Your task to perform on an android device: Search for the best selling jewelry on Etsy. Image 0: 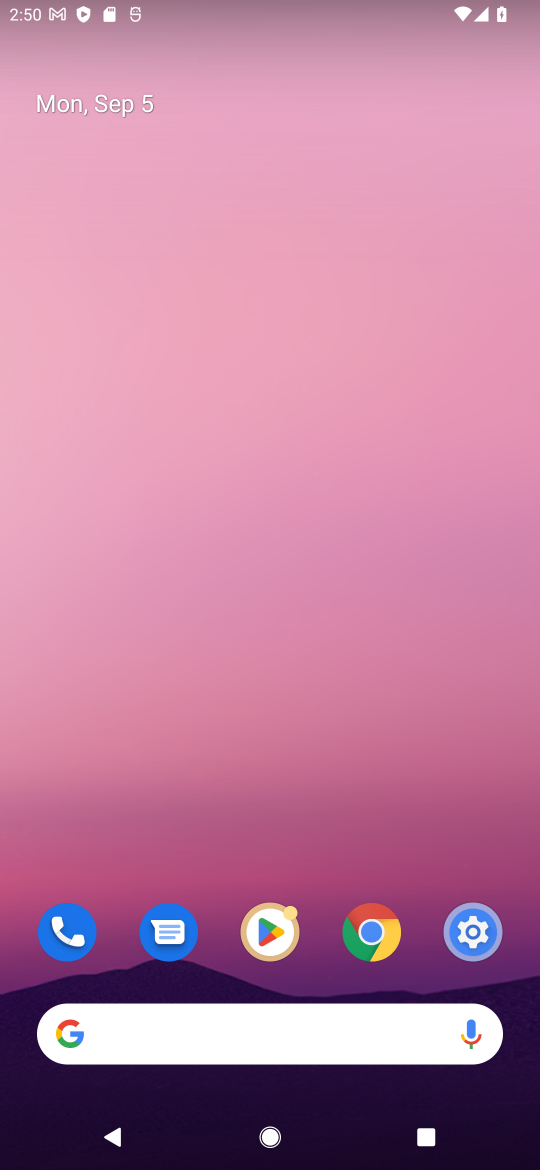
Step 0: click (242, 1024)
Your task to perform on an android device: Search for the best selling jewelry on Etsy. Image 1: 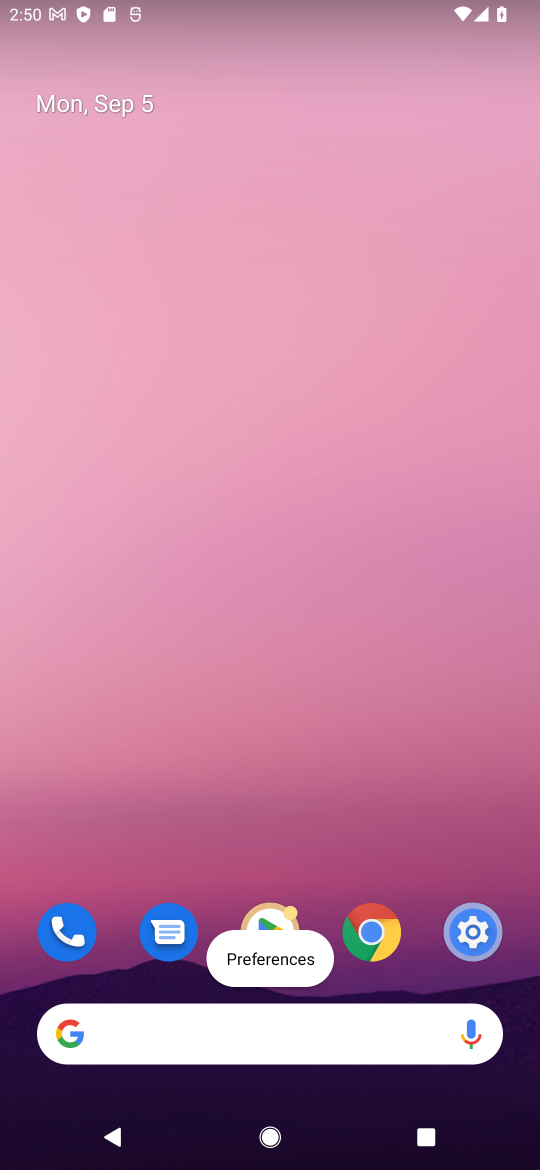
Step 1: click (242, 1024)
Your task to perform on an android device: Search for the best selling jewelry on Etsy. Image 2: 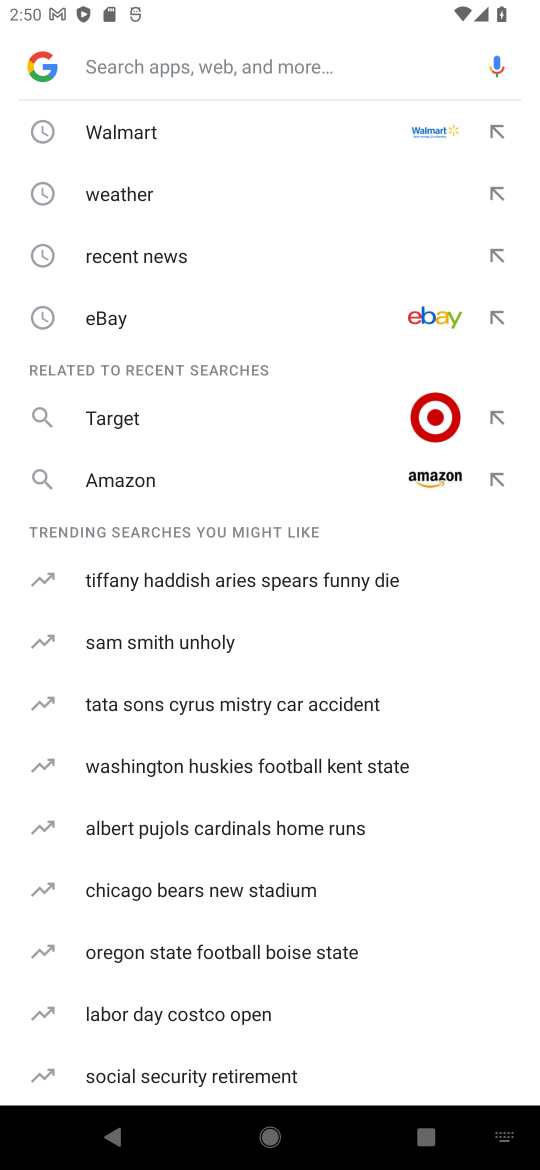
Step 2: click (242, 1025)
Your task to perform on an android device: Search for the best selling jewelry on Etsy. Image 3: 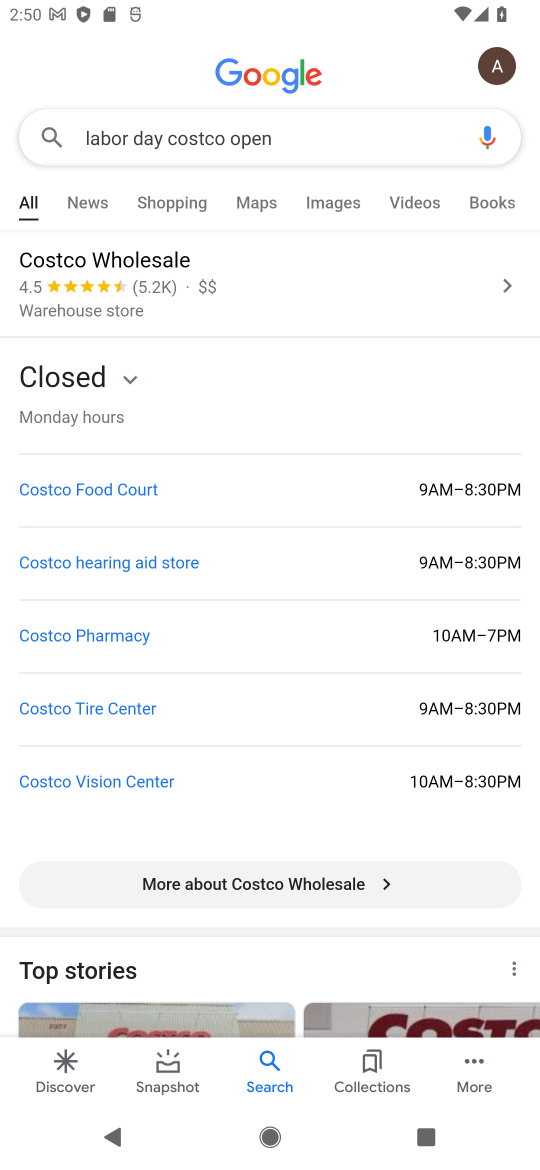
Step 3: click (344, 137)
Your task to perform on an android device: Search for the best selling jewelry on Etsy. Image 4: 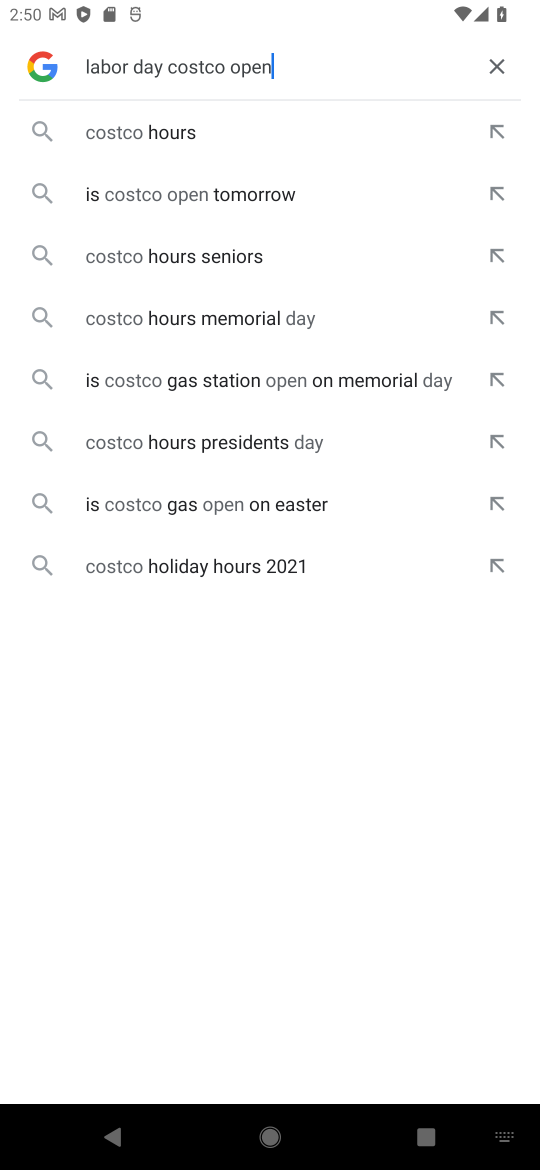
Step 4: click (506, 60)
Your task to perform on an android device: Search for the best selling jewelry on Etsy. Image 5: 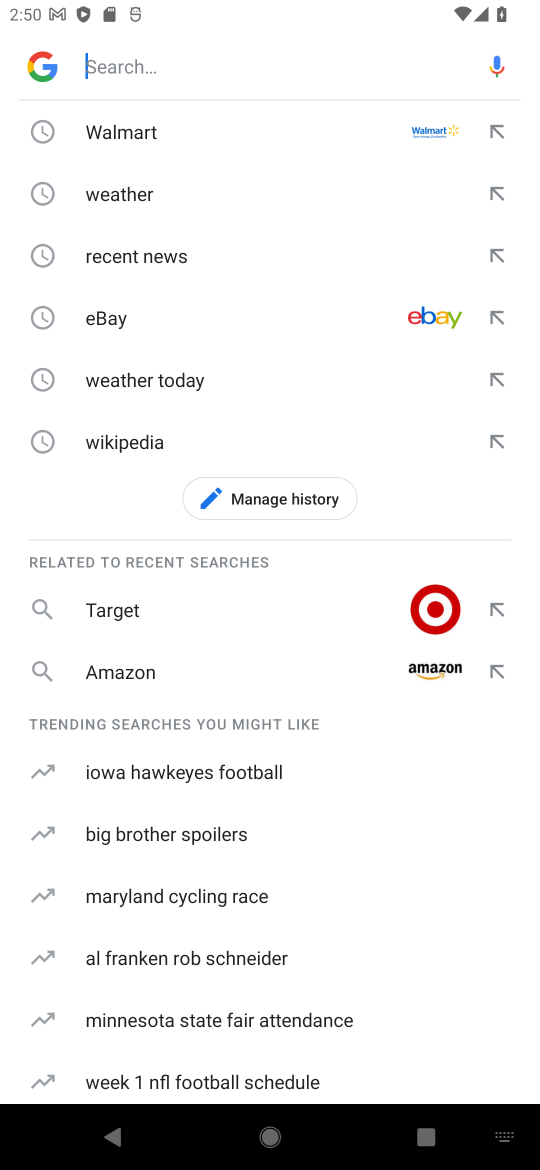
Step 5: type ""
Your task to perform on an android device: Search for the best selling jewelry on Etsy. Image 6: 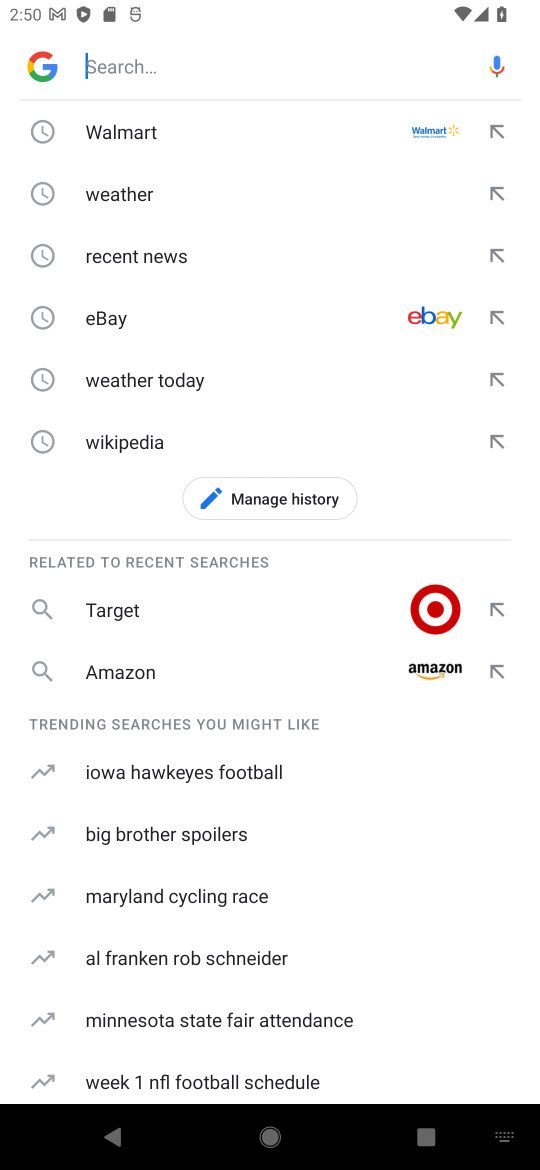
Step 6: type "Etsy"
Your task to perform on an android device: Search for the best selling jewelry on Etsy. Image 7: 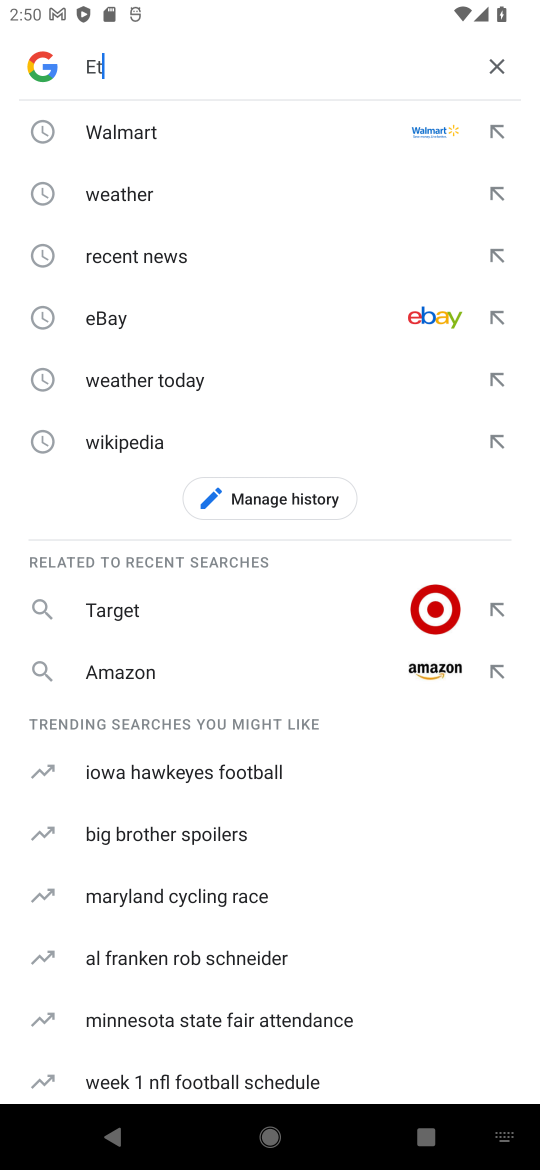
Step 7: type ""
Your task to perform on an android device: Search for the best selling jewelry on Etsy. Image 8: 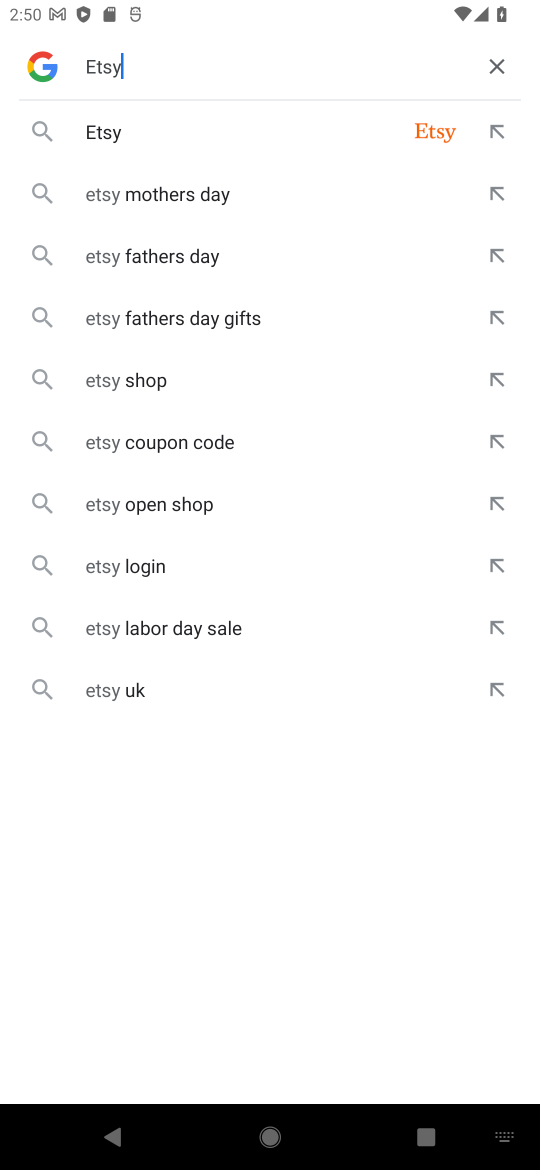
Step 8: click (155, 145)
Your task to perform on an android device: Search for the best selling jewelry on Etsy. Image 9: 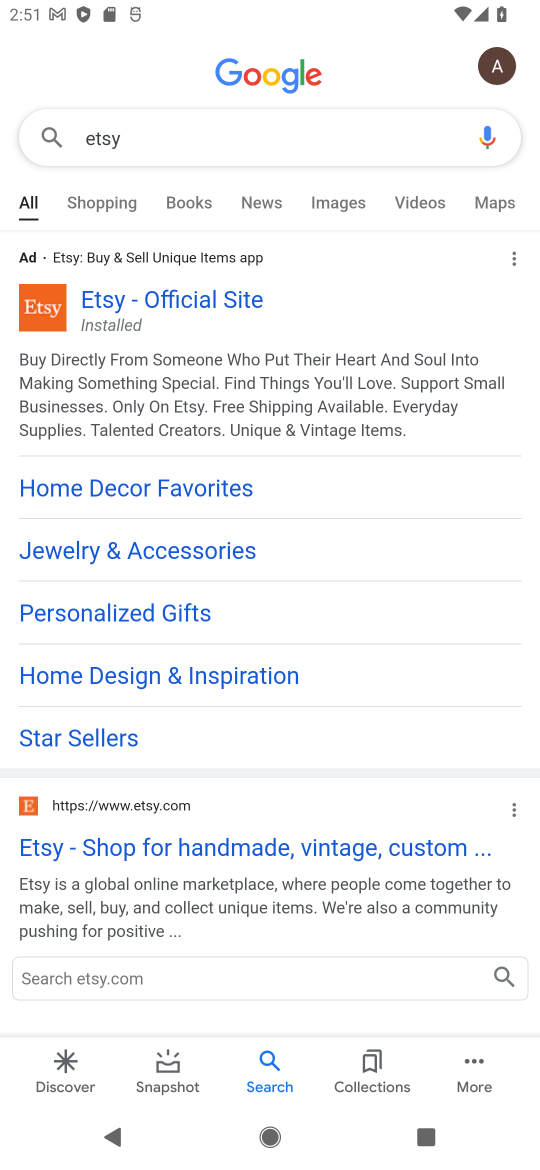
Step 9: click (124, 843)
Your task to perform on an android device: Search for the best selling jewelry on Etsy. Image 10: 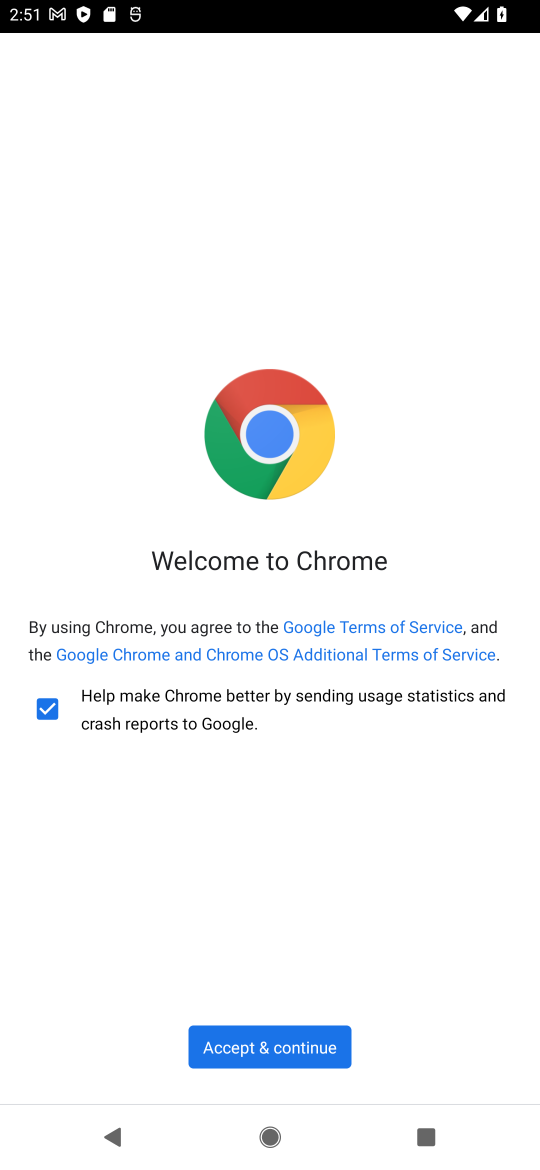
Step 10: click (243, 1056)
Your task to perform on an android device: Search for the best selling jewelry on Etsy. Image 11: 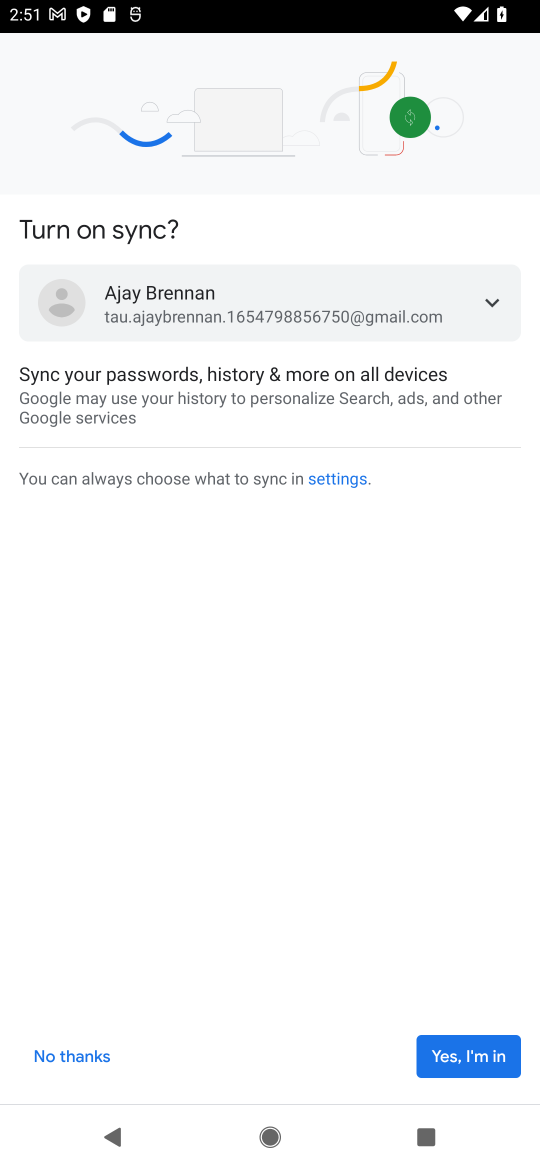
Step 11: click (430, 1074)
Your task to perform on an android device: Search for the best selling jewelry on Etsy. Image 12: 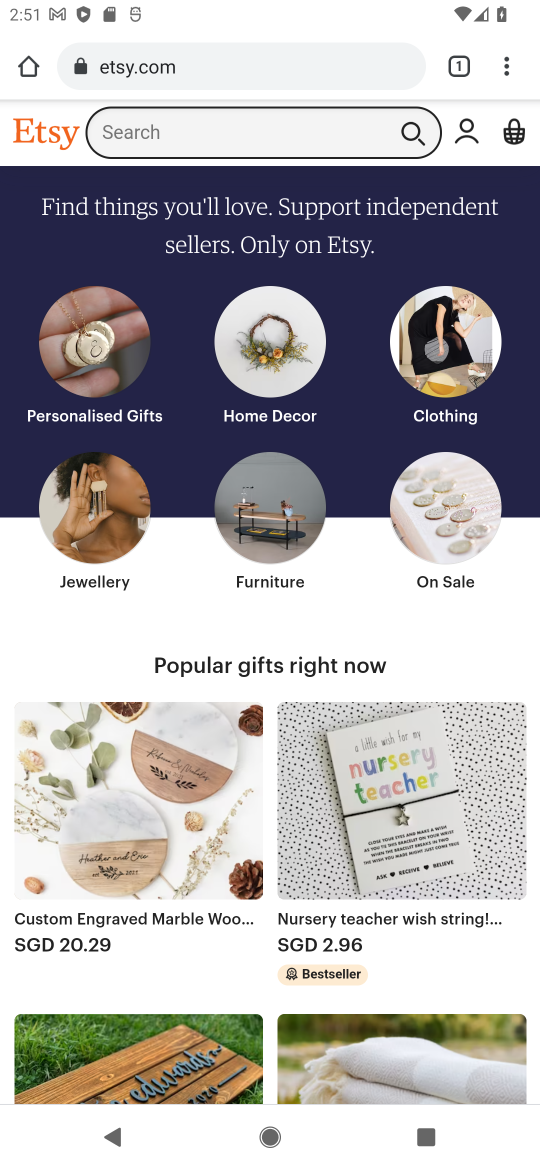
Step 12: click (76, 526)
Your task to perform on an android device: Search for the best selling jewelry on Etsy. Image 13: 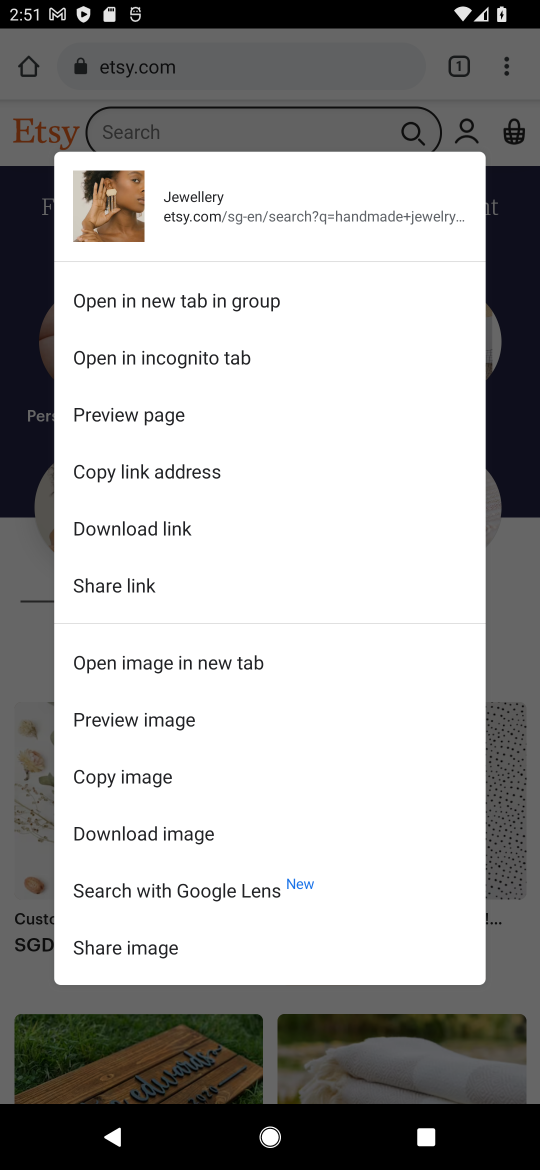
Step 13: click (39, 526)
Your task to perform on an android device: Search for the best selling jewelry on Etsy. Image 14: 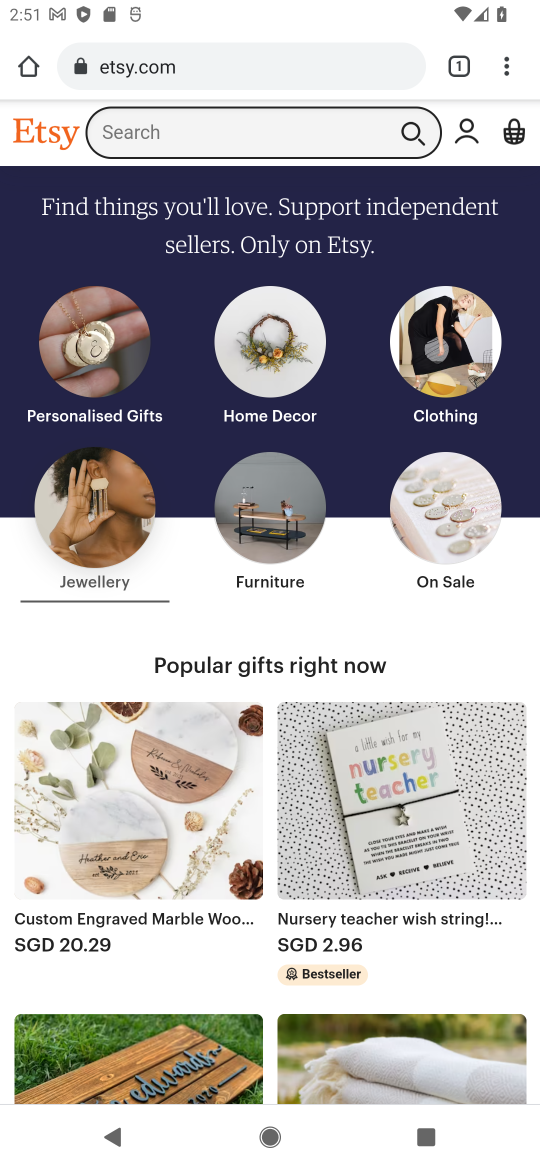
Step 14: click (86, 526)
Your task to perform on an android device: Search for the best selling jewelry on Etsy. Image 15: 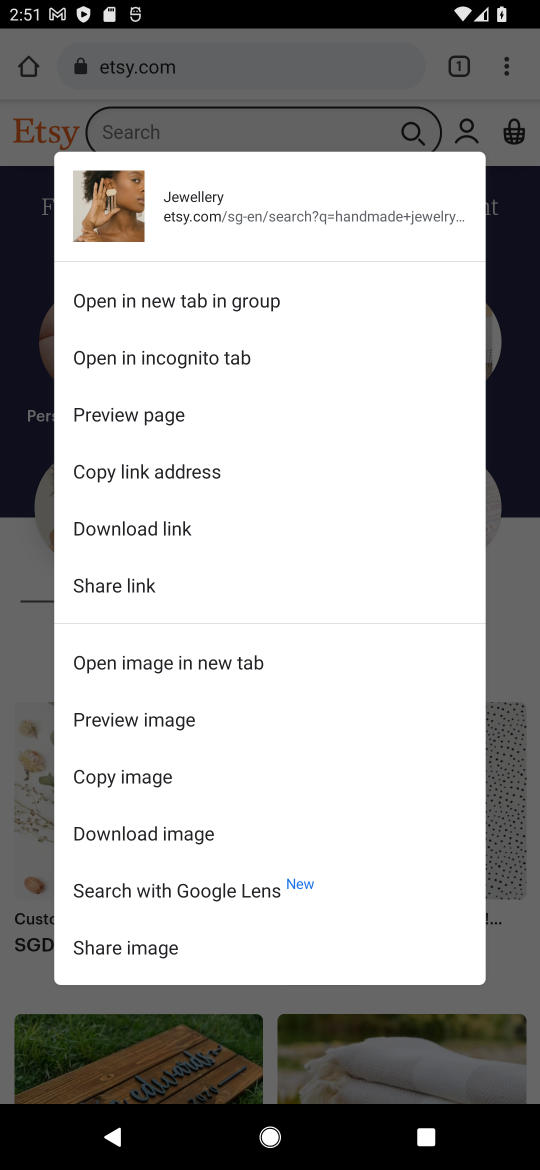
Step 15: click (29, 530)
Your task to perform on an android device: Search for the best selling jewelry on Etsy. Image 16: 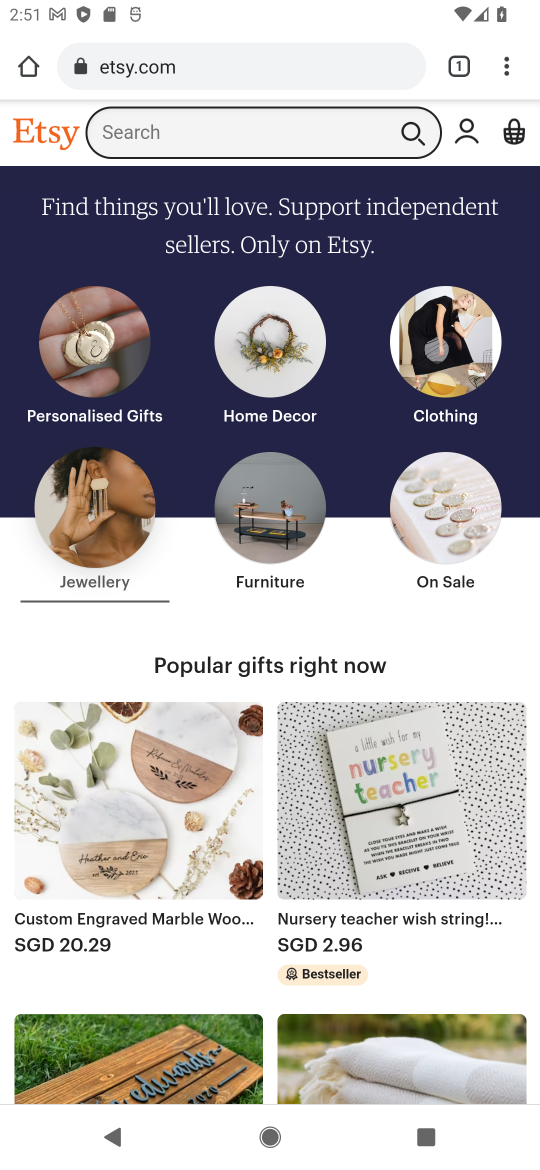
Step 16: click (111, 508)
Your task to perform on an android device: Search for the best selling jewelry on Etsy. Image 17: 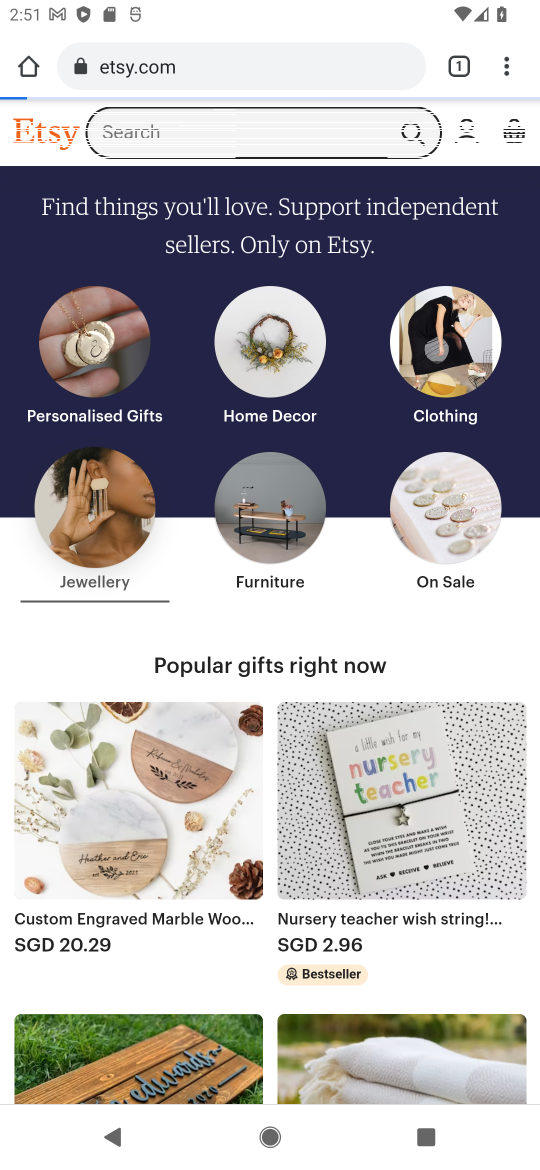
Step 17: click (111, 508)
Your task to perform on an android device: Search for the best selling jewelry on Etsy. Image 18: 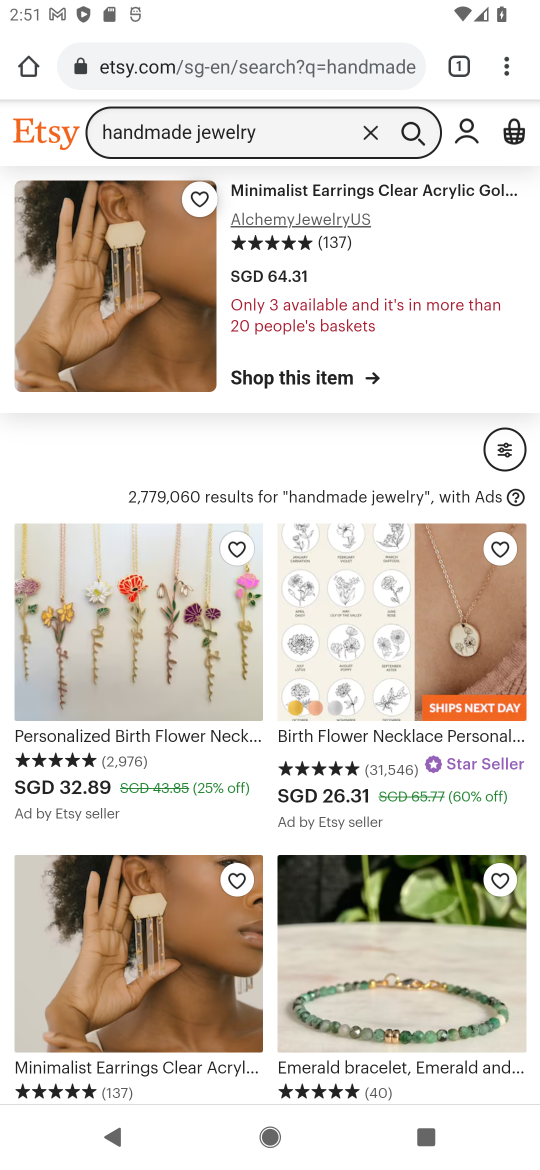
Step 18: task complete